Your task to perform on an android device: star an email in the gmail app Image 0: 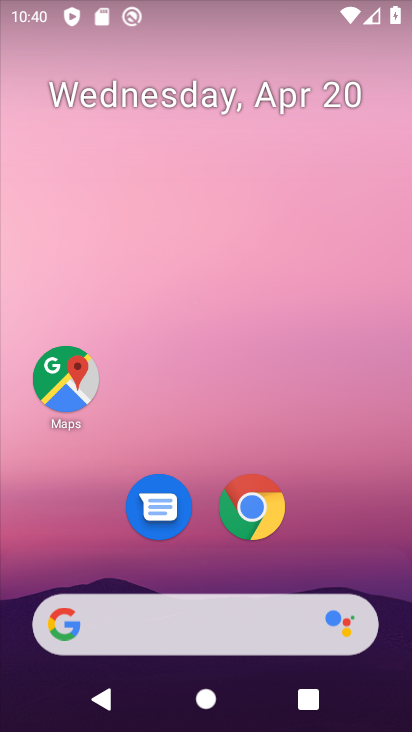
Step 0: drag from (374, 541) to (264, 125)
Your task to perform on an android device: star an email in the gmail app Image 1: 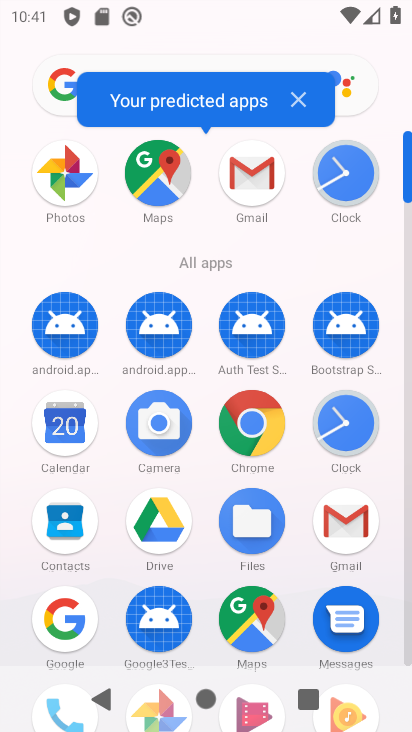
Step 1: click (264, 189)
Your task to perform on an android device: star an email in the gmail app Image 2: 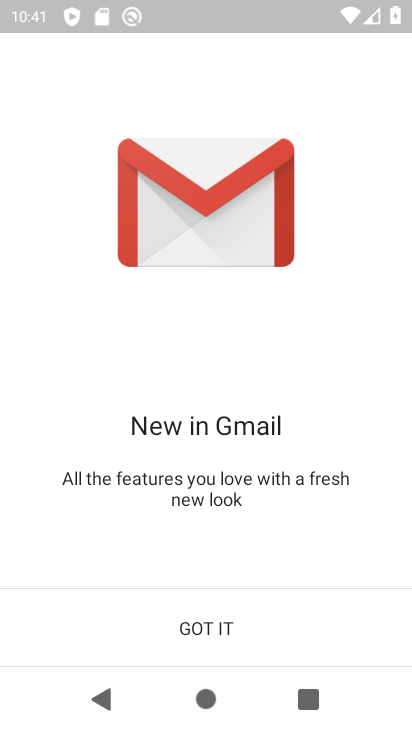
Step 2: click (194, 647)
Your task to perform on an android device: star an email in the gmail app Image 3: 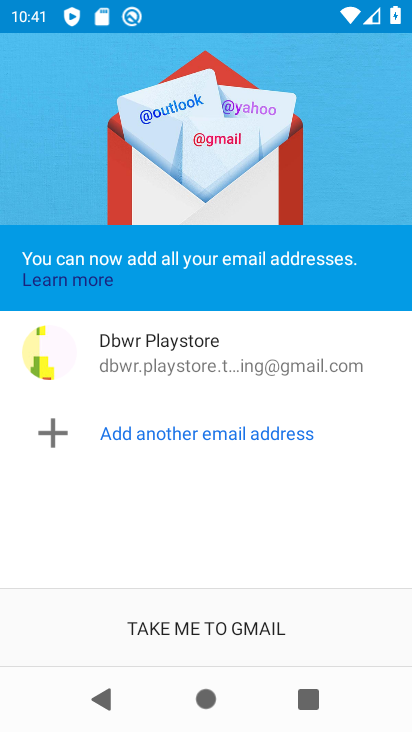
Step 3: click (190, 647)
Your task to perform on an android device: star an email in the gmail app Image 4: 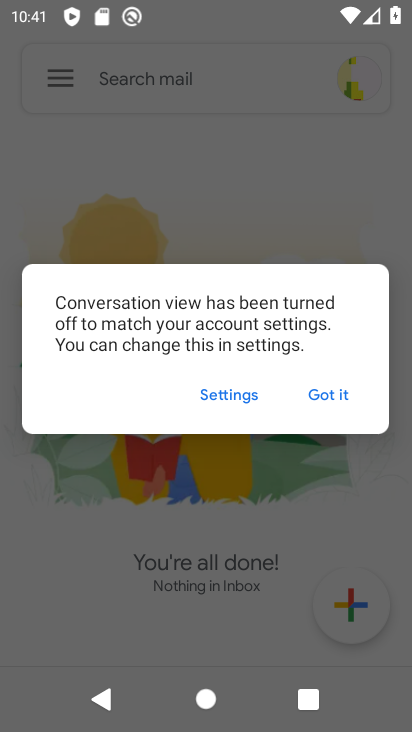
Step 4: click (329, 396)
Your task to perform on an android device: star an email in the gmail app Image 5: 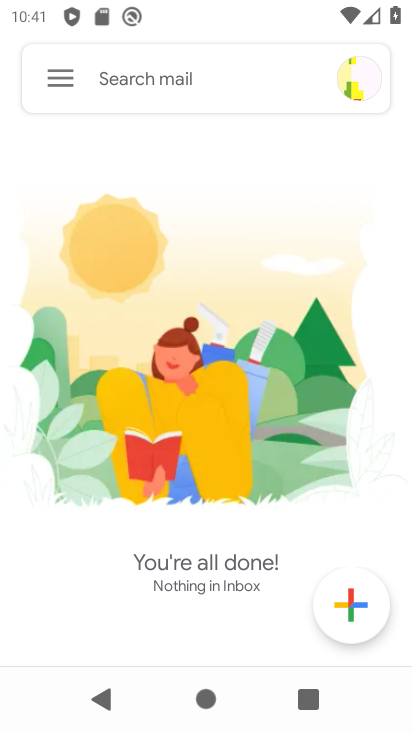
Step 5: click (56, 74)
Your task to perform on an android device: star an email in the gmail app Image 6: 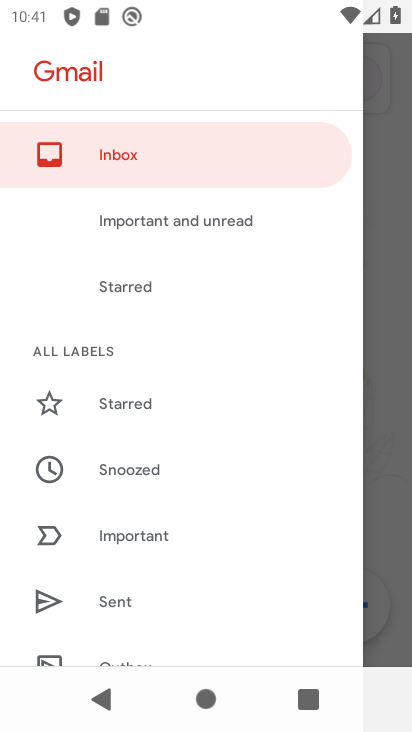
Step 6: drag from (273, 558) to (241, 54)
Your task to perform on an android device: star an email in the gmail app Image 7: 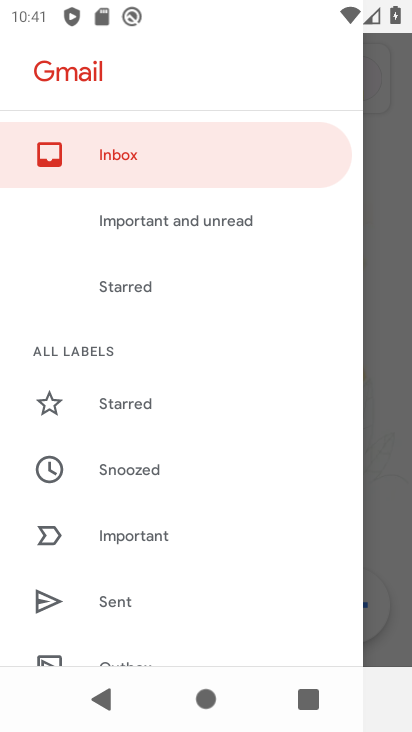
Step 7: drag from (299, 637) to (332, 222)
Your task to perform on an android device: star an email in the gmail app Image 8: 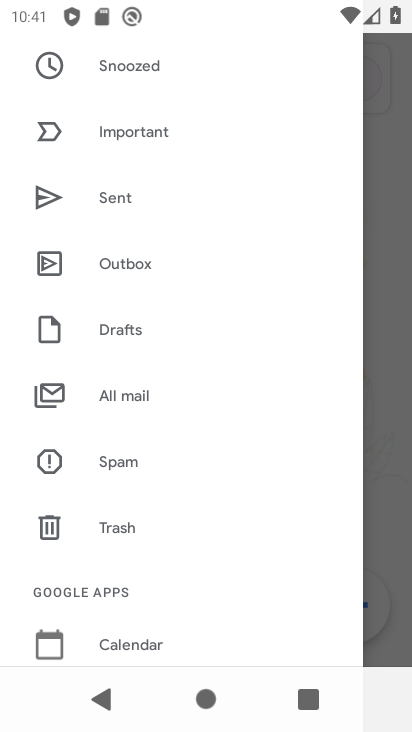
Step 8: click (273, 392)
Your task to perform on an android device: star an email in the gmail app Image 9: 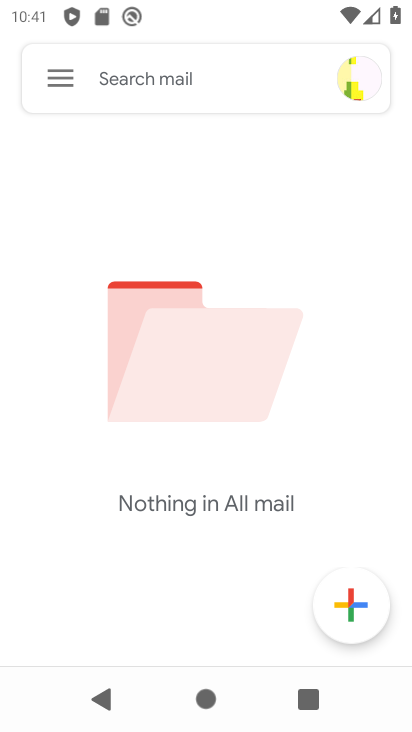
Step 9: task complete